Your task to perform on an android device: open a bookmark in the chrome app Image 0: 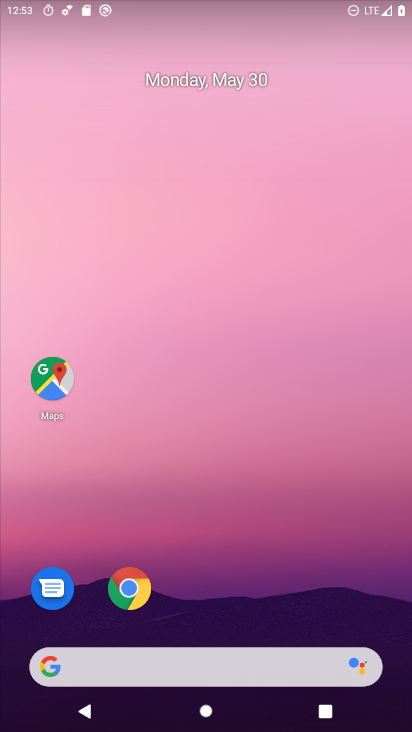
Step 0: drag from (250, 586) to (243, 71)
Your task to perform on an android device: open a bookmark in the chrome app Image 1: 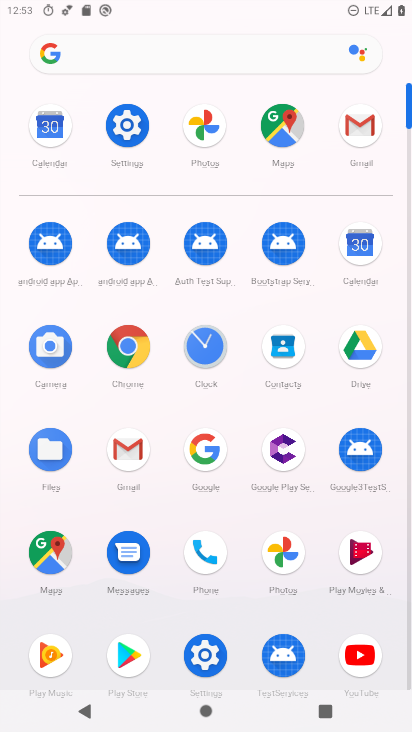
Step 1: click (127, 365)
Your task to perform on an android device: open a bookmark in the chrome app Image 2: 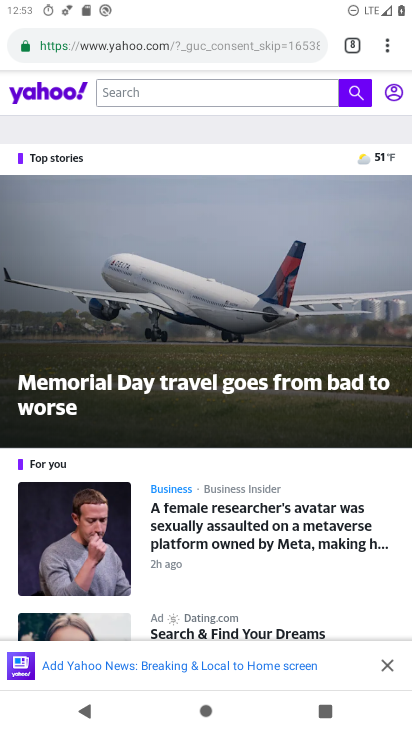
Step 2: click (390, 45)
Your task to perform on an android device: open a bookmark in the chrome app Image 3: 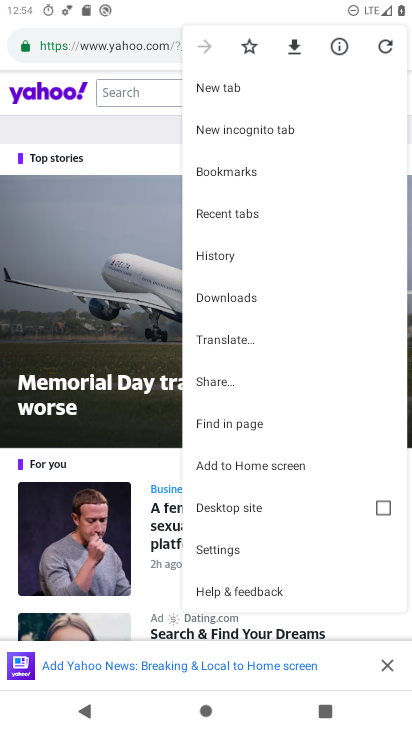
Step 3: click (264, 178)
Your task to perform on an android device: open a bookmark in the chrome app Image 4: 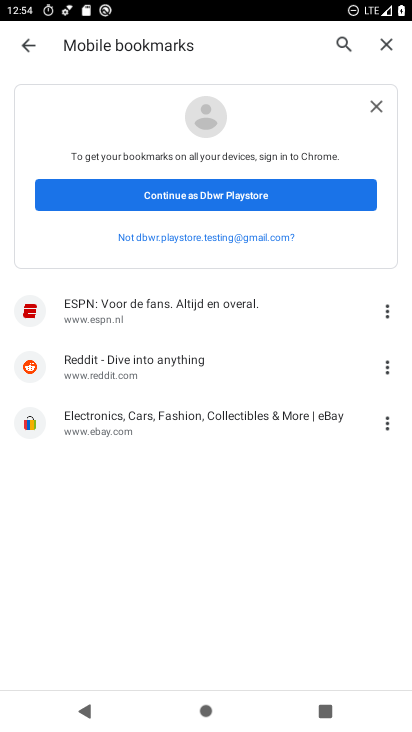
Step 4: click (52, 298)
Your task to perform on an android device: open a bookmark in the chrome app Image 5: 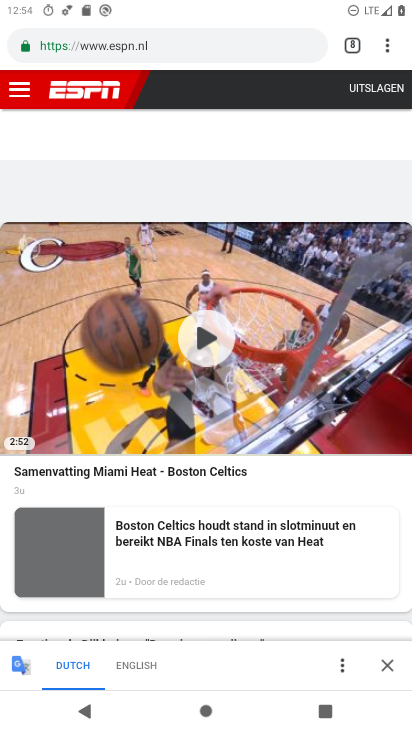
Step 5: click (142, 261)
Your task to perform on an android device: open a bookmark in the chrome app Image 6: 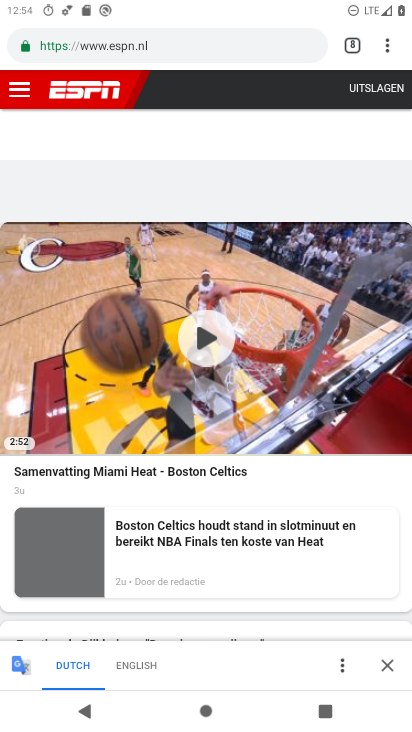
Step 6: task complete